Your task to perform on an android device: change timer sound Image 0: 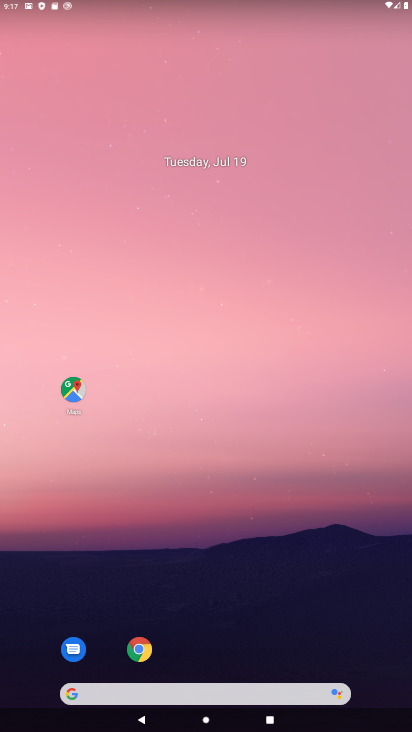
Step 0: drag from (361, 670) to (172, 64)
Your task to perform on an android device: change timer sound Image 1: 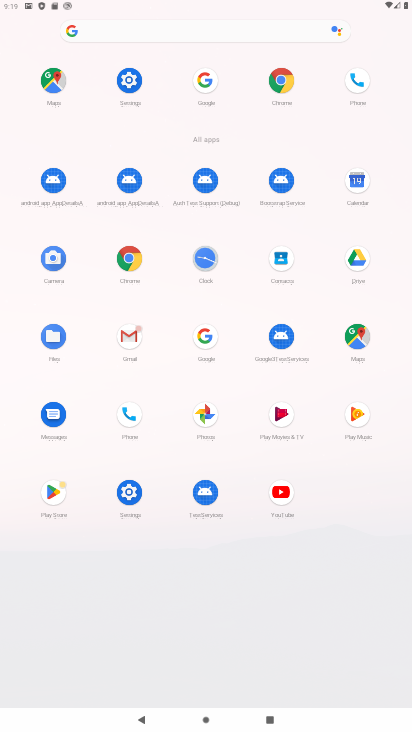
Step 1: click (211, 272)
Your task to perform on an android device: change timer sound Image 2: 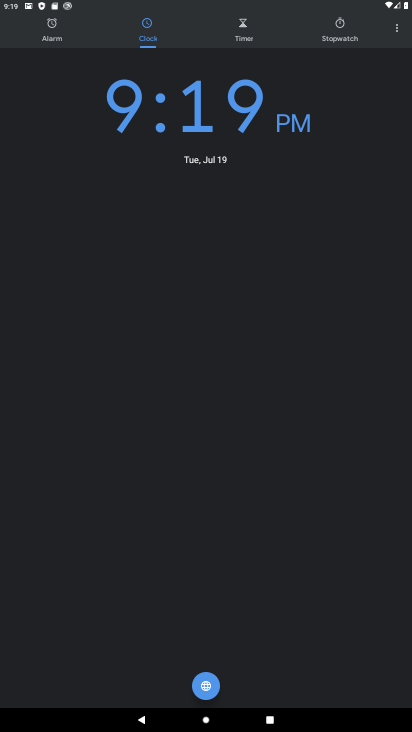
Step 2: click (396, 22)
Your task to perform on an android device: change timer sound Image 3: 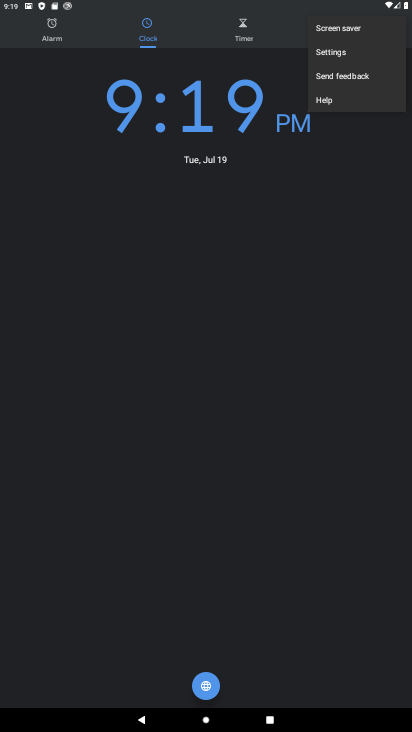
Step 3: click (337, 51)
Your task to perform on an android device: change timer sound Image 4: 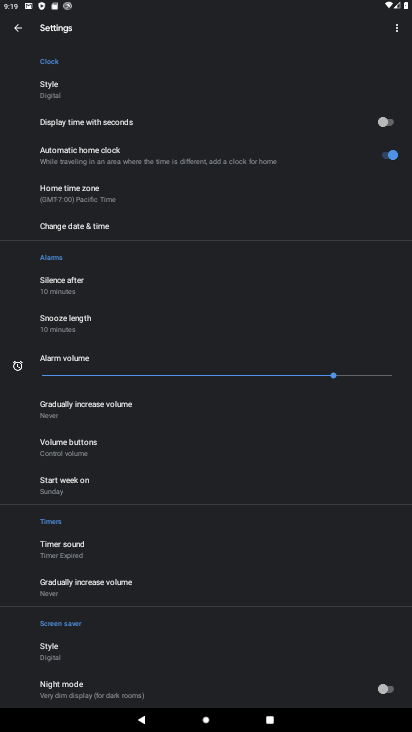
Step 4: click (75, 554)
Your task to perform on an android device: change timer sound Image 5: 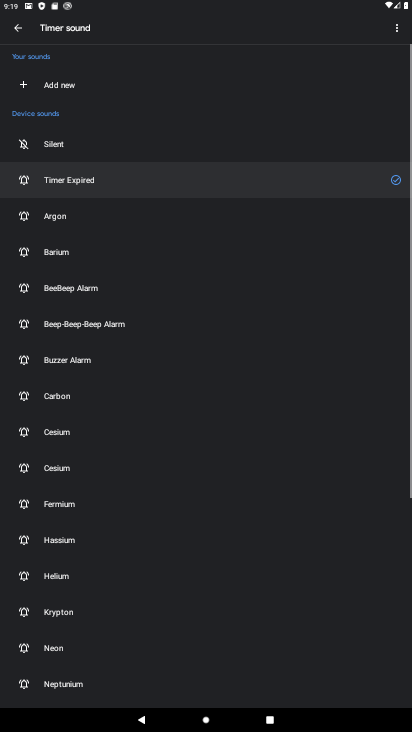
Step 5: click (93, 364)
Your task to perform on an android device: change timer sound Image 6: 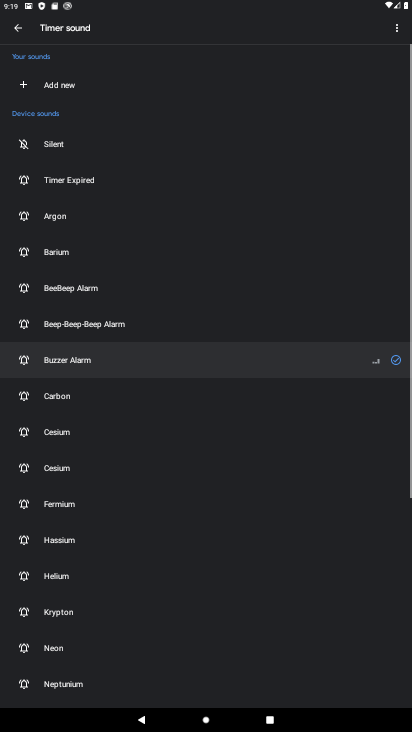
Step 6: task complete